Your task to perform on an android device: create a new album in the google photos Image 0: 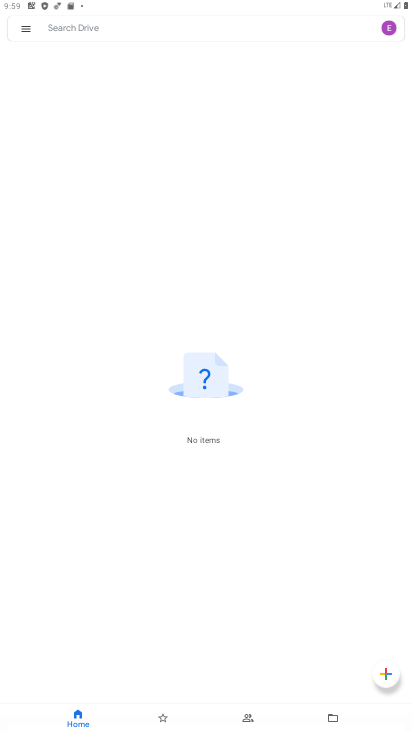
Step 0: press home button
Your task to perform on an android device: create a new album in the google photos Image 1: 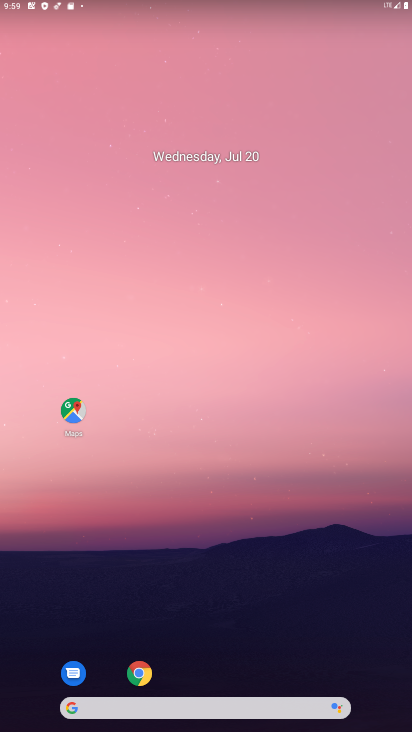
Step 1: drag from (192, 711) to (167, 67)
Your task to perform on an android device: create a new album in the google photos Image 2: 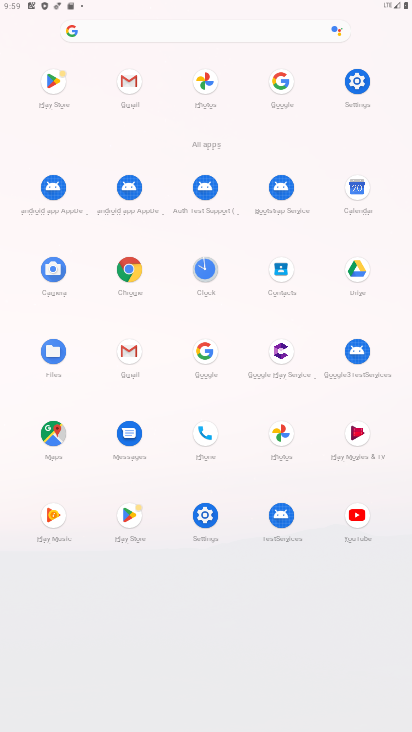
Step 2: click (206, 83)
Your task to perform on an android device: create a new album in the google photos Image 3: 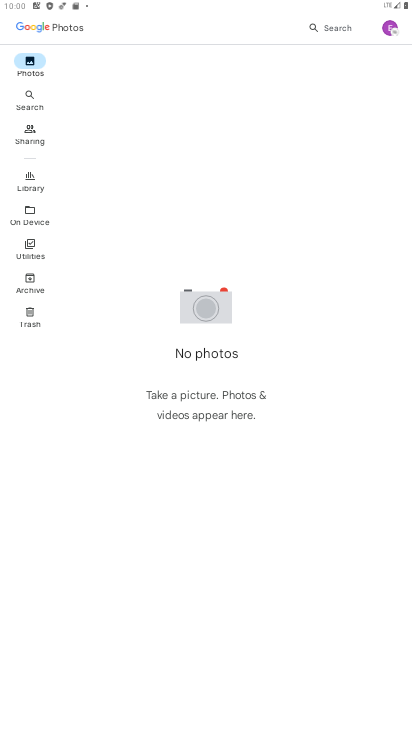
Step 3: click (35, 181)
Your task to perform on an android device: create a new album in the google photos Image 4: 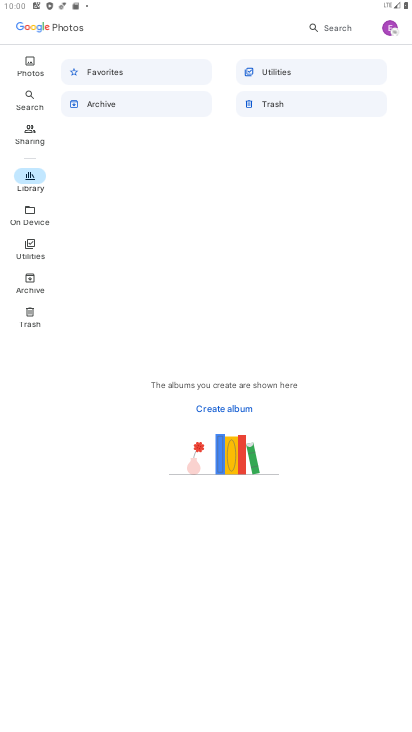
Step 4: click (238, 407)
Your task to perform on an android device: create a new album in the google photos Image 5: 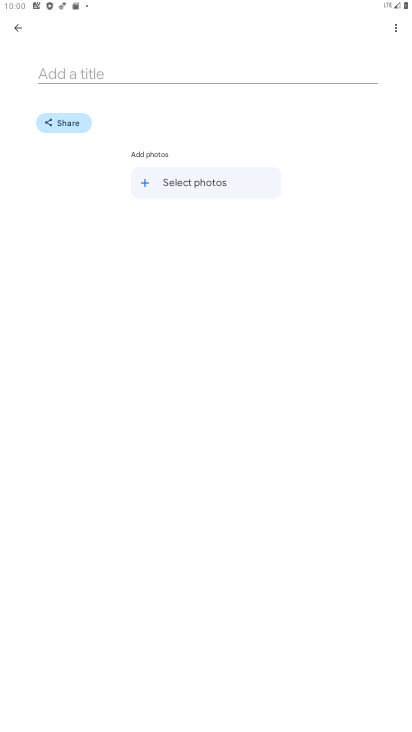
Step 5: click (146, 180)
Your task to perform on an android device: create a new album in the google photos Image 6: 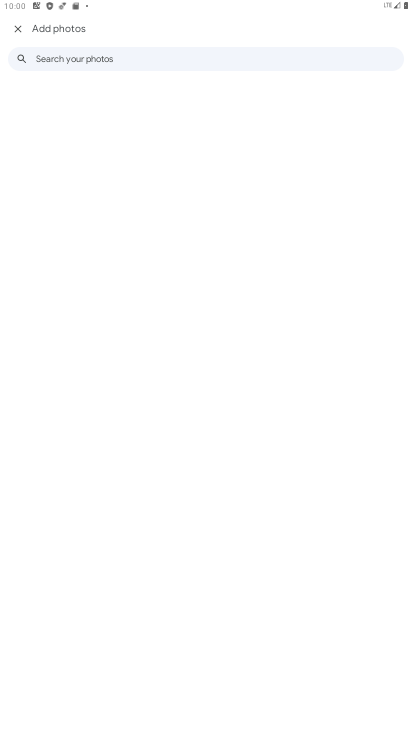
Step 6: task complete